Your task to perform on an android device: turn off notifications in google photos Image 0: 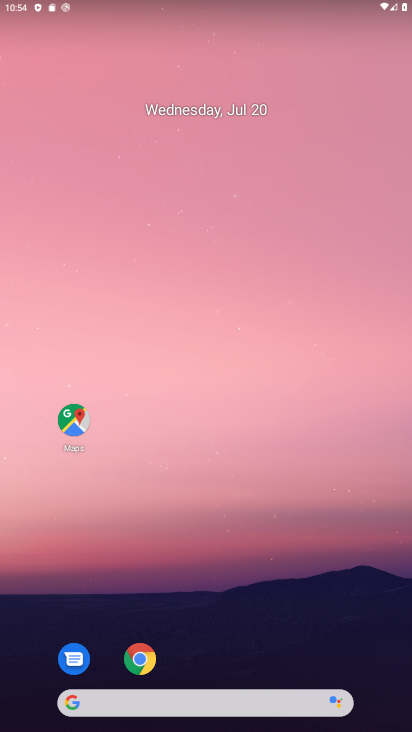
Step 0: drag from (197, 673) to (178, 191)
Your task to perform on an android device: turn off notifications in google photos Image 1: 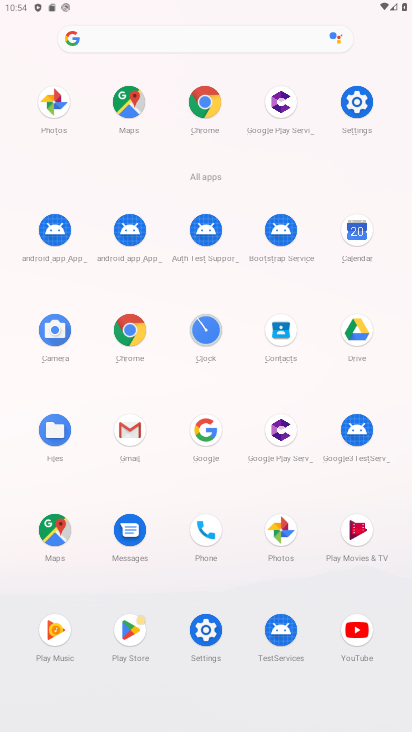
Step 1: click (285, 542)
Your task to perform on an android device: turn off notifications in google photos Image 2: 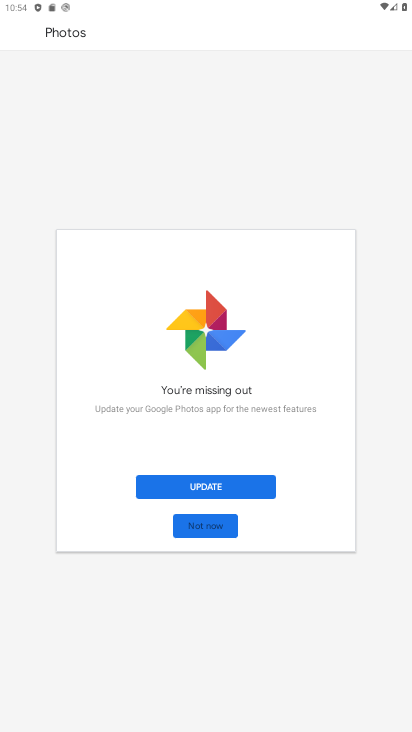
Step 2: click (211, 518)
Your task to perform on an android device: turn off notifications in google photos Image 3: 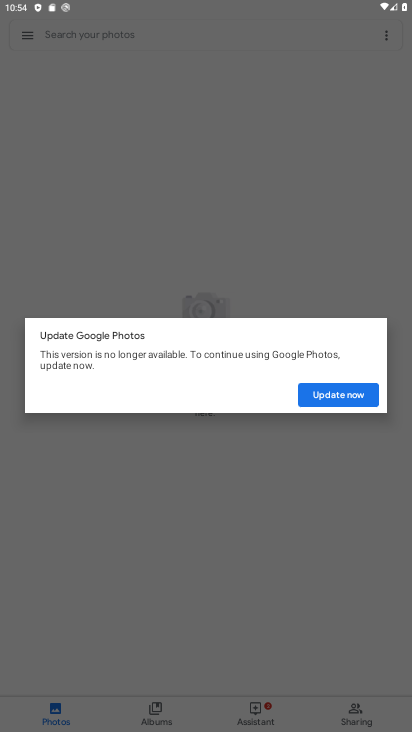
Step 3: click (333, 393)
Your task to perform on an android device: turn off notifications in google photos Image 4: 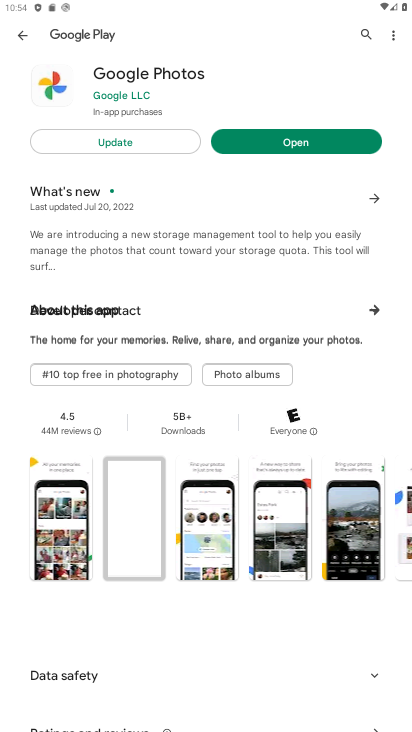
Step 4: click (330, 150)
Your task to perform on an android device: turn off notifications in google photos Image 5: 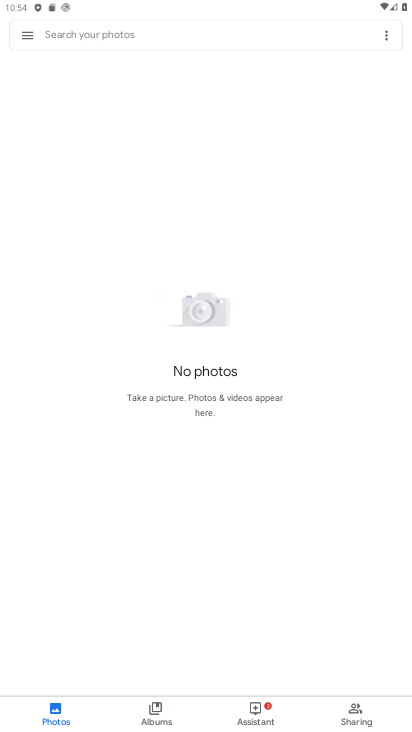
Step 5: click (22, 34)
Your task to perform on an android device: turn off notifications in google photos Image 6: 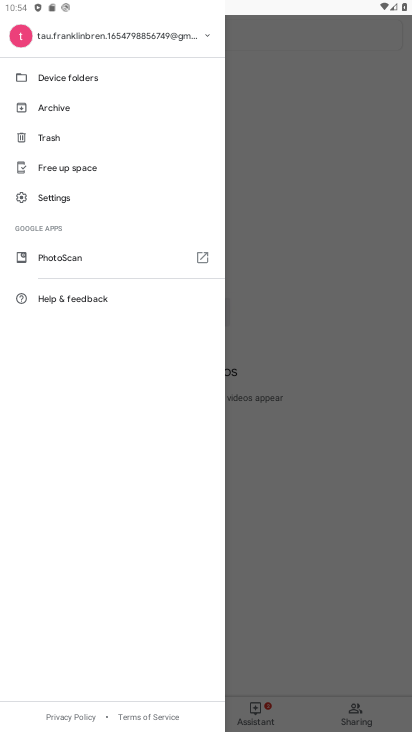
Step 6: click (56, 204)
Your task to perform on an android device: turn off notifications in google photos Image 7: 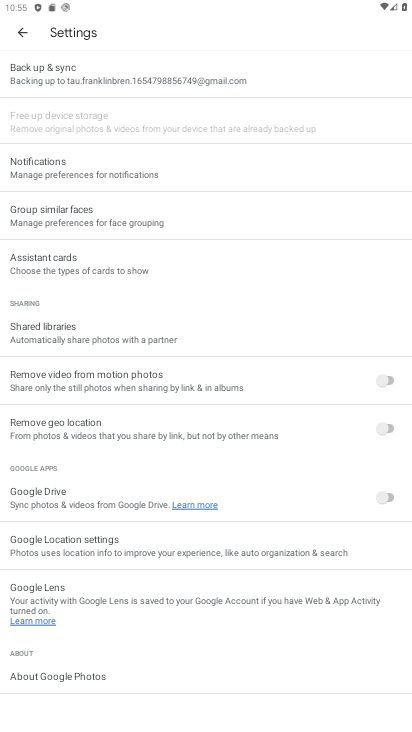
Step 7: click (76, 171)
Your task to perform on an android device: turn off notifications in google photos Image 8: 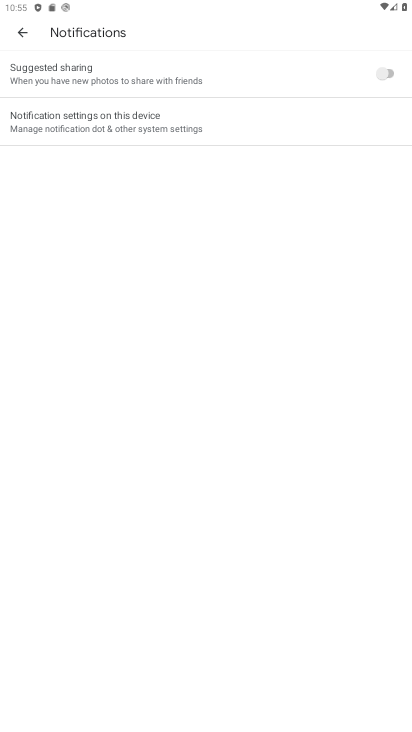
Step 8: click (127, 131)
Your task to perform on an android device: turn off notifications in google photos Image 9: 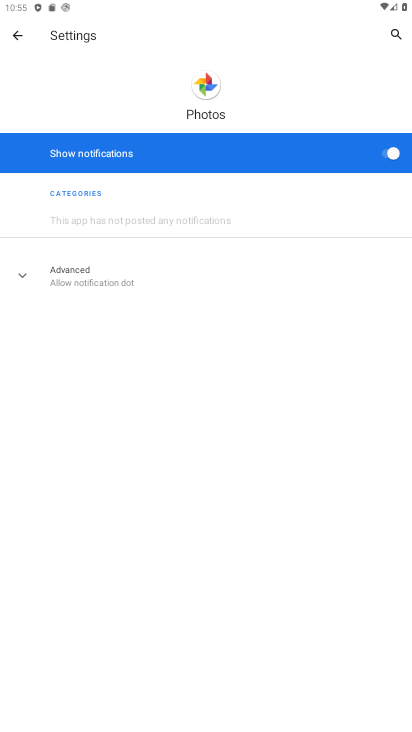
Step 9: click (356, 152)
Your task to perform on an android device: turn off notifications in google photos Image 10: 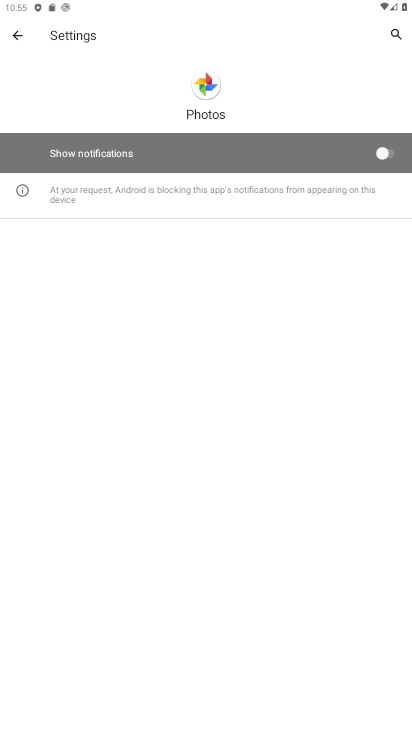
Step 10: task complete